Your task to perform on an android device: turn off location Image 0: 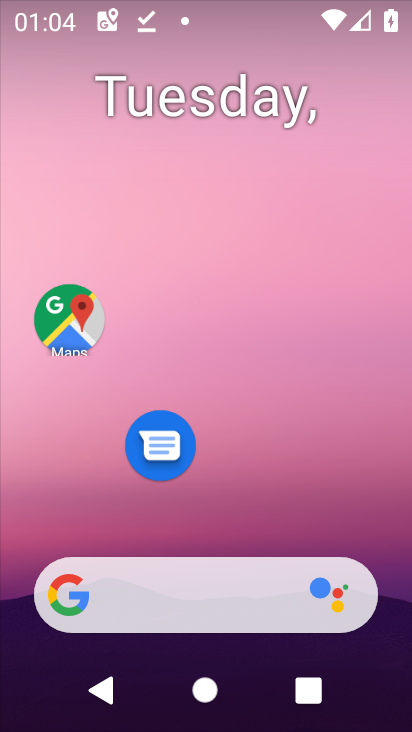
Step 0: drag from (281, 472) to (223, 137)
Your task to perform on an android device: turn off location Image 1: 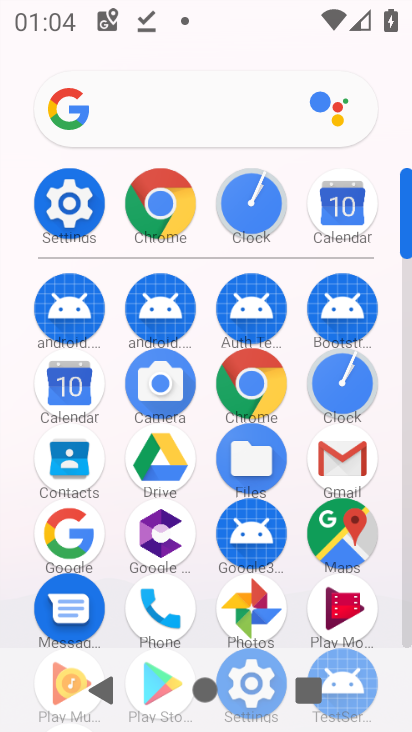
Step 1: click (73, 201)
Your task to perform on an android device: turn off location Image 2: 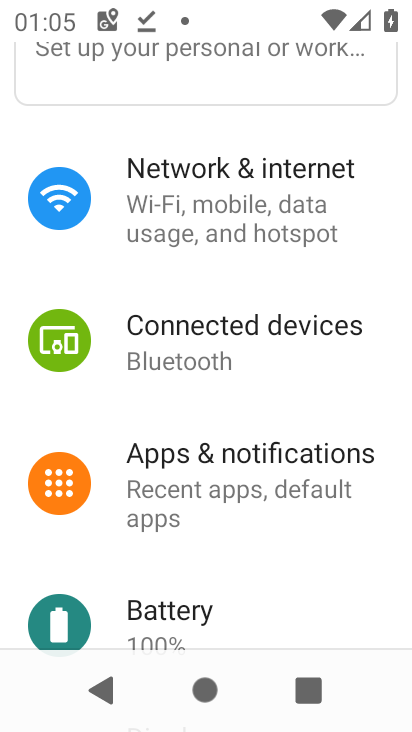
Step 2: drag from (239, 587) to (210, 163)
Your task to perform on an android device: turn off location Image 3: 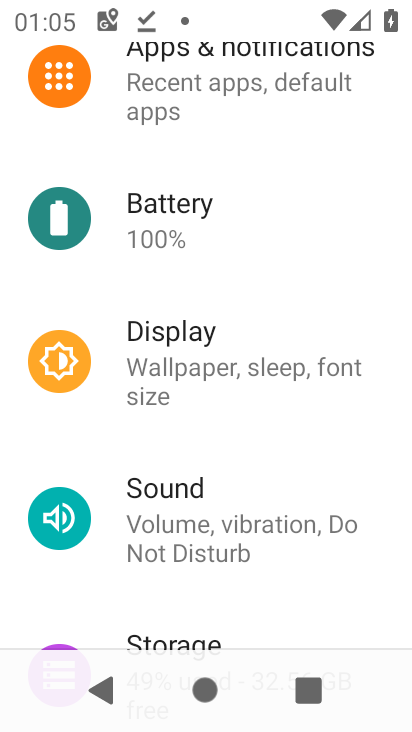
Step 3: drag from (239, 446) to (219, 176)
Your task to perform on an android device: turn off location Image 4: 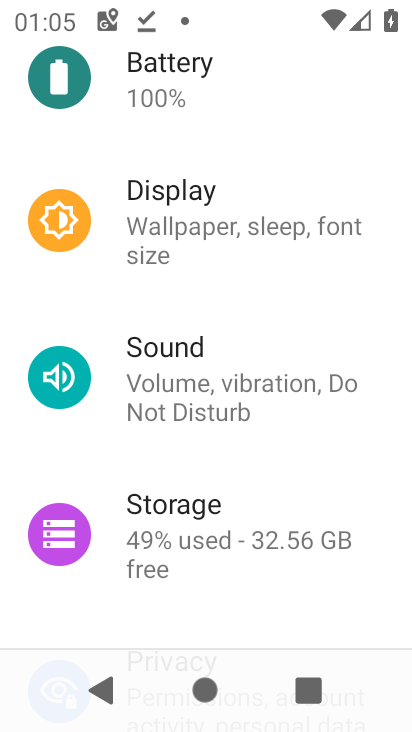
Step 4: drag from (213, 465) to (213, 139)
Your task to perform on an android device: turn off location Image 5: 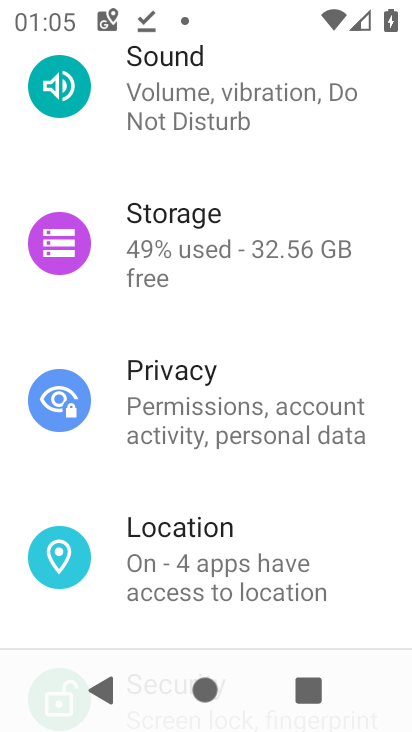
Step 5: click (185, 536)
Your task to perform on an android device: turn off location Image 6: 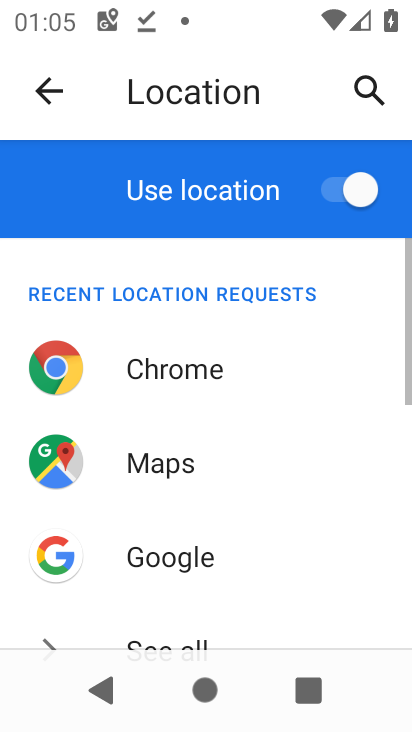
Step 6: click (362, 194)
Your task to perform on an android device: turn off location Image 7: 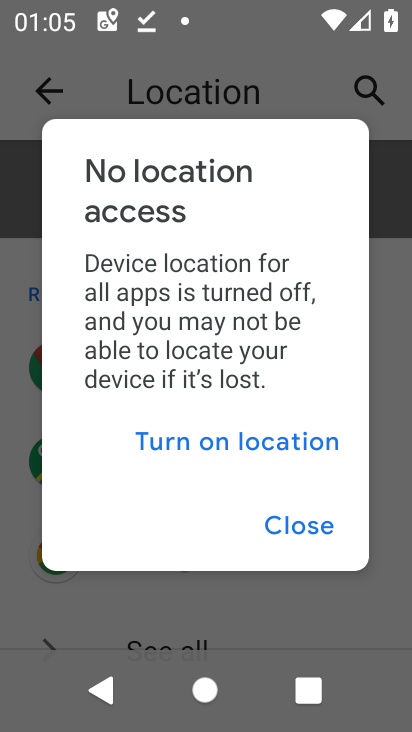
Step 7: click (282, 527)
Your task to perform on an android device: turn off location Image 8: 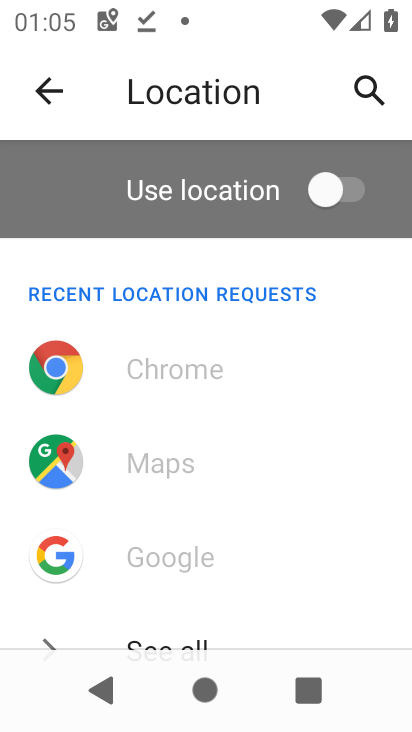
Step 8: task complete